Your task to perform on an android device: Do I have any events today? Image 0: 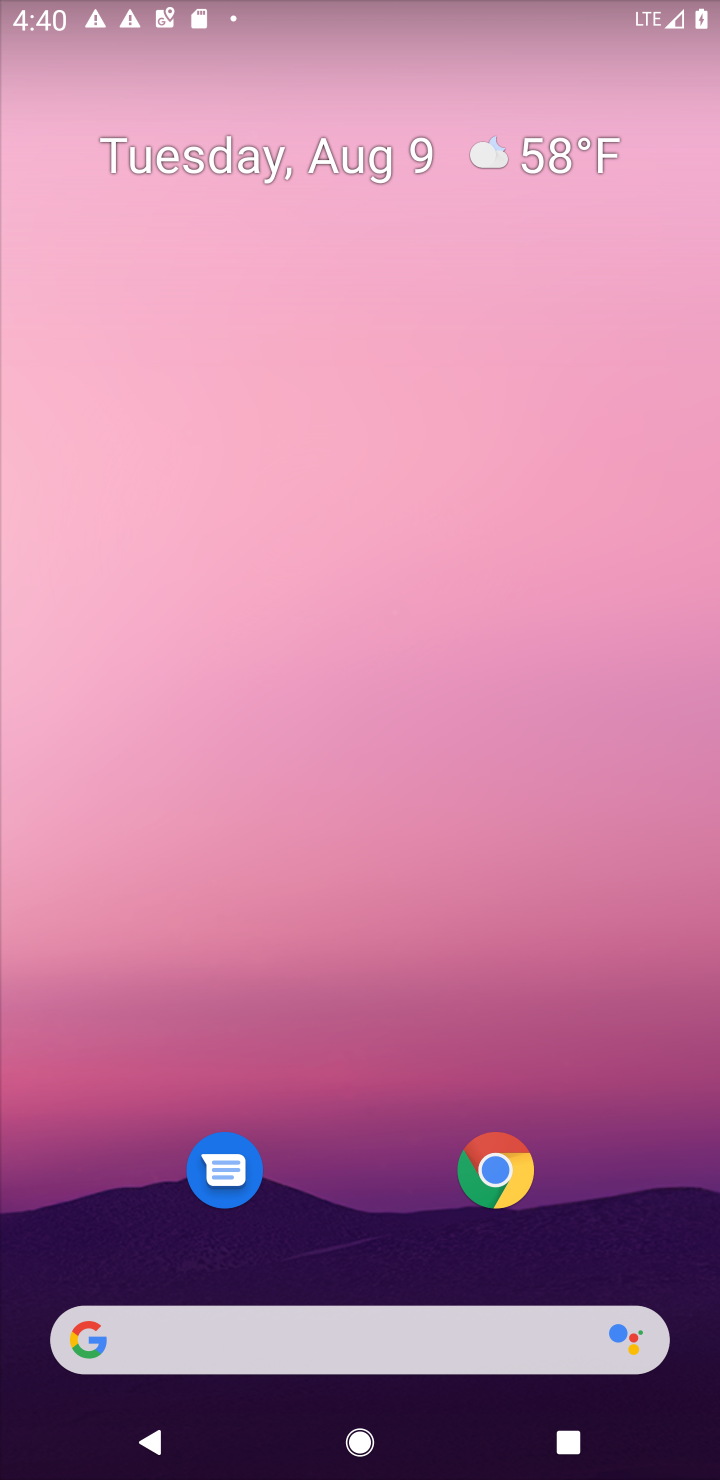
Step 0: press home button
Your task to perform on an android device: Do I have any events today? Image 1: 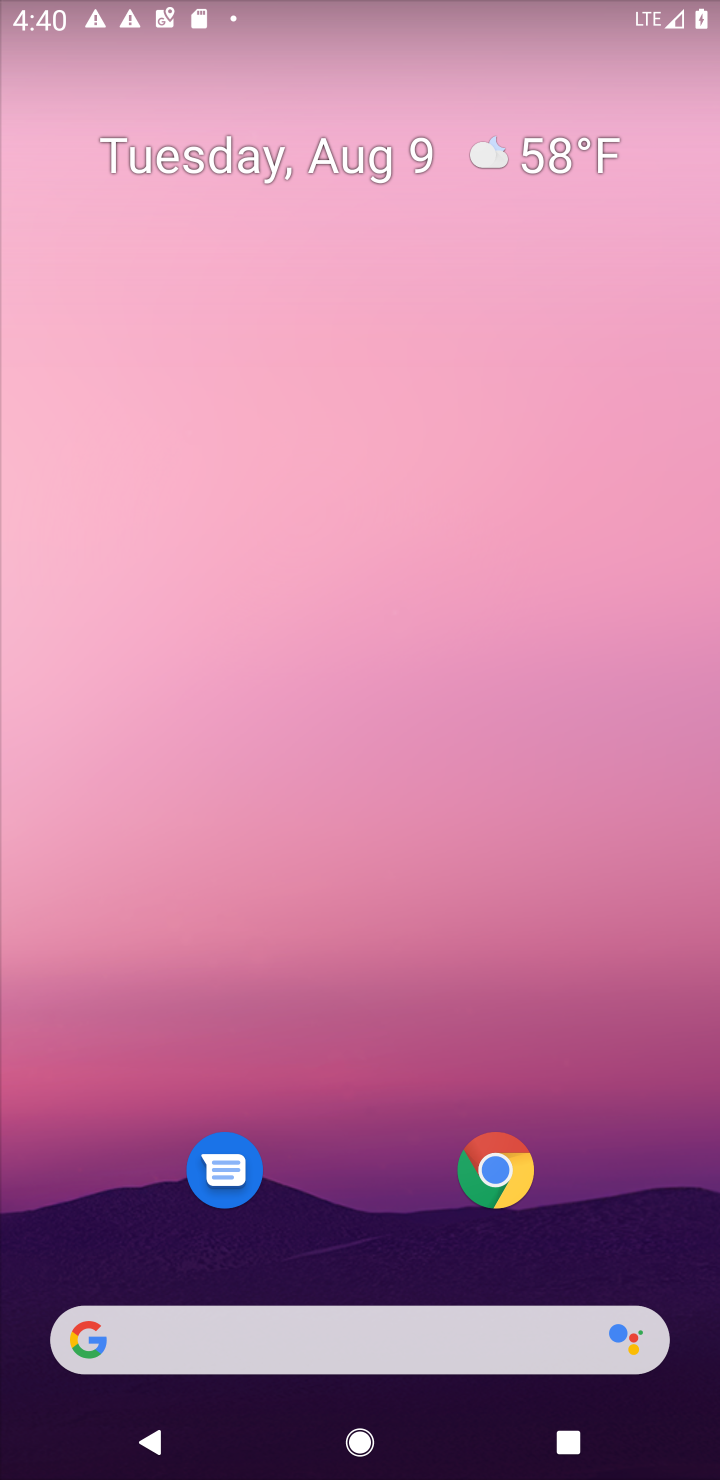
Step 1: drag from (399, 230) to (359, 104)
Your task to perform on an android device: Do I have any events today? Image 2: 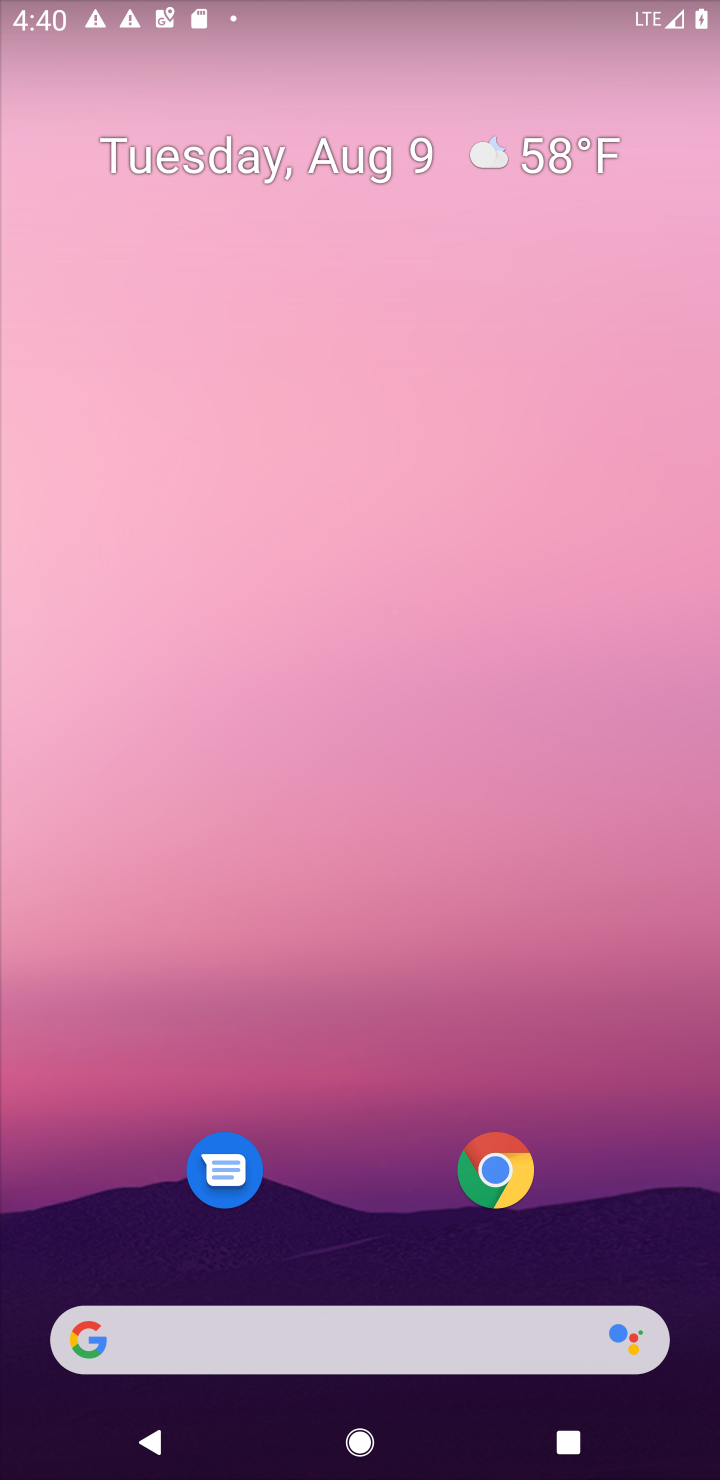
Step 2: drag from (335, 1019) to (309, 147)
Your task to perform on an android device: Do I have any events today? Image 3: 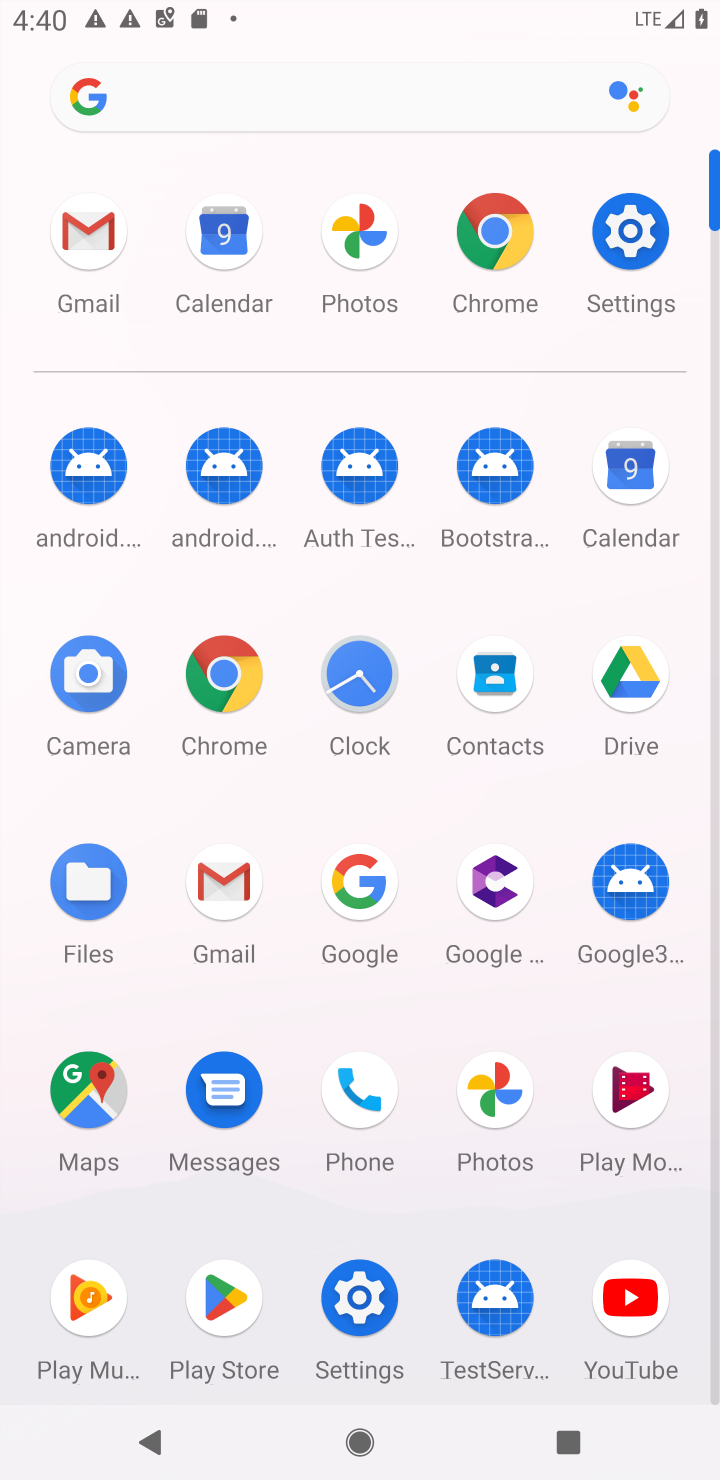
Step 3: click (630, 468)
Your task to perform on an android device: Do I have any events today? Image 4: 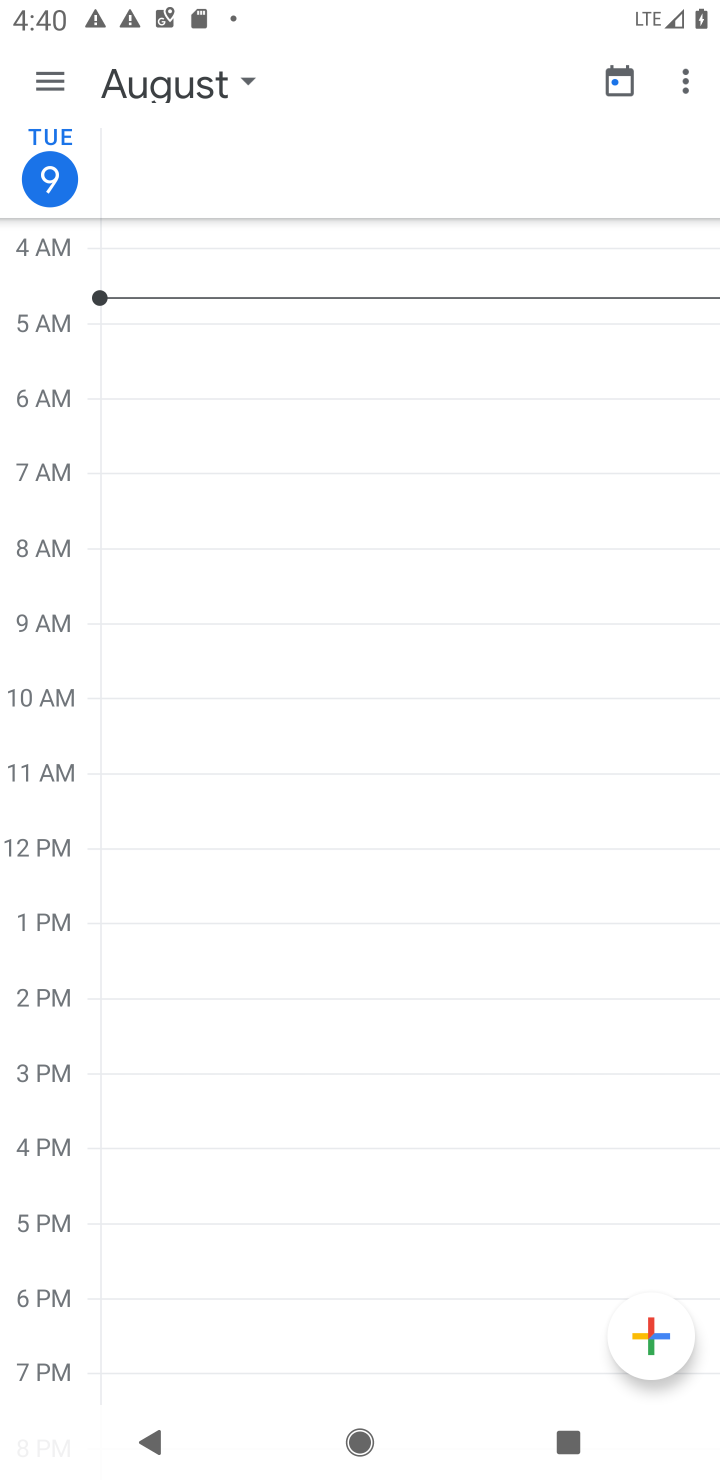
Step 4: task complete